Your task to perform on an android device: move an email to a new category in the gmail app Image 0: 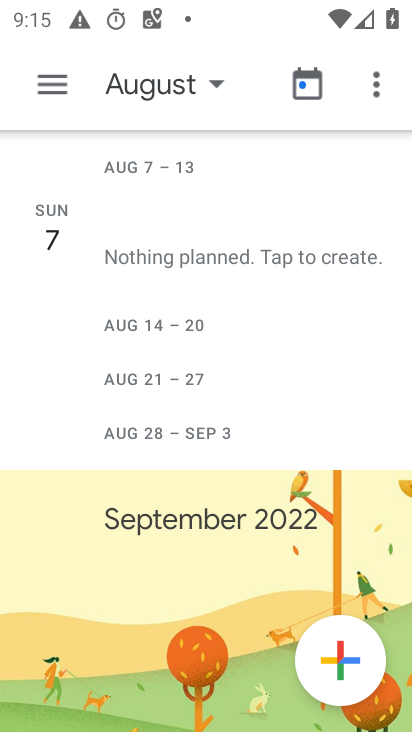
Step 0: press home button
Your task to perform on an android device: move an email to a new category in the gmail app Image 1: 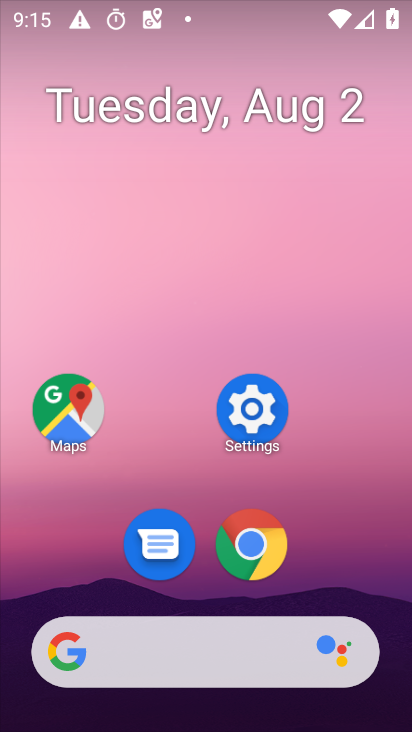
Step 1: drag from (187, 638) to (316, 110)
Your task to perform on an android device: move an email to a new category in the gmail app Image 2: 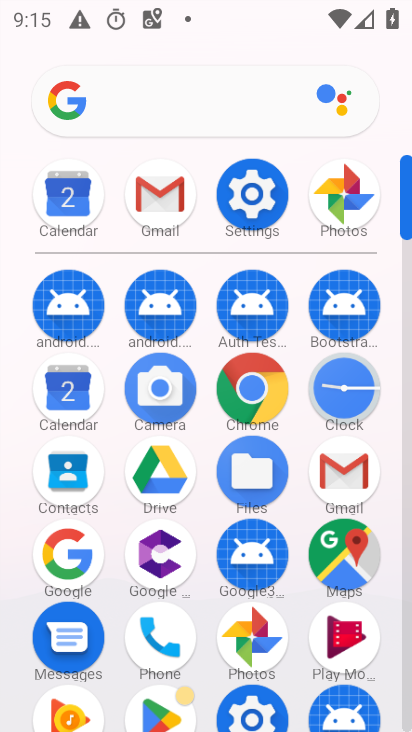
Step 2: click (164, 204)
Your task to perform on an android device: move an email to a new category in the gmail app Image 3: 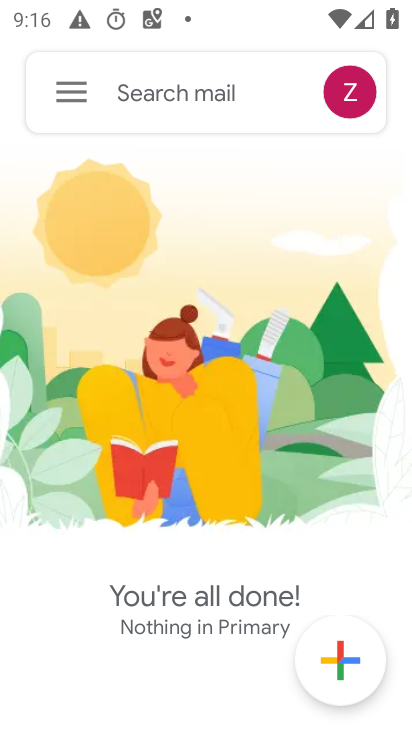
Step 3: task complete